Your task to perform on an android device: open app "Truecaller" (install if not already installed) Image 0: 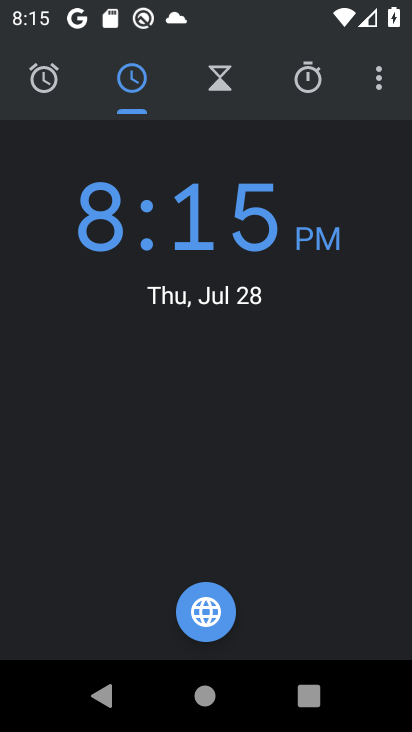
Step 0: press back button
Your task to perform on an android device: open app "Truecaller" (install if not already installed) Image 1: 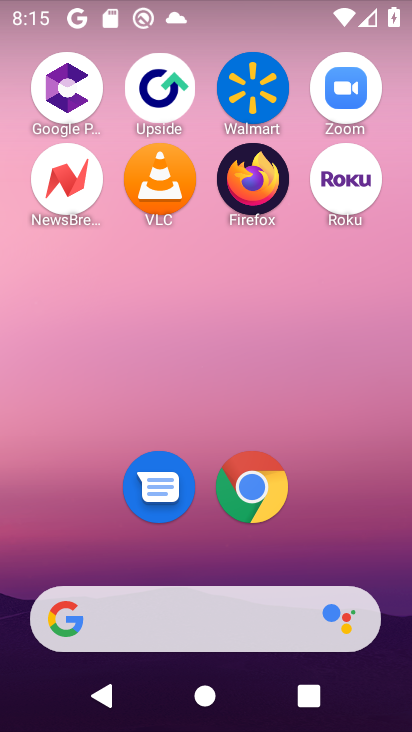
Step 1: drag from (251, 548) to (251, 161)
Your task to perform on an android device: open app "Truecaller" (install if not already installed) Image 2: 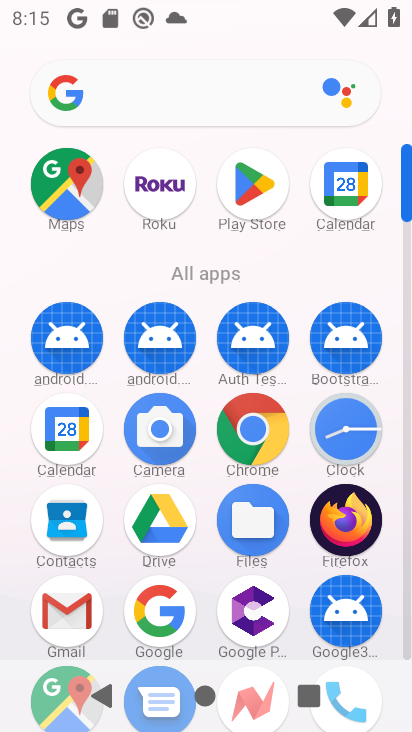
Step 2: drag from (262, 533) to (237, 153)
Your task to perform on an android device: open app "Truecaller" (install if not already installed) Image 3: 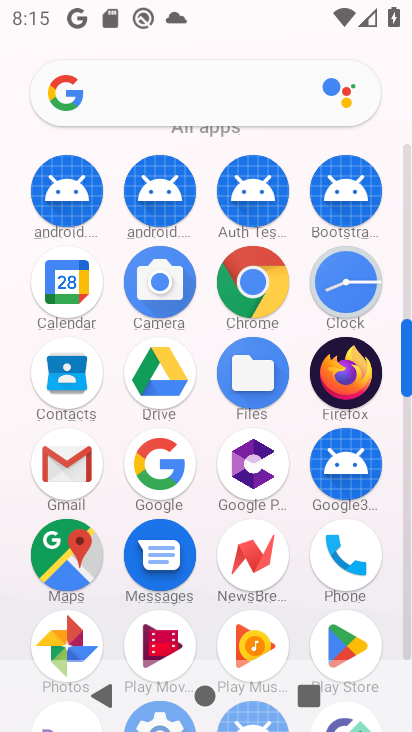
Step 3: drag from (303, 261) to (327, 424)
Your task to perform on an android device: open app "Truecaller" (install if not already installed) Image 4: 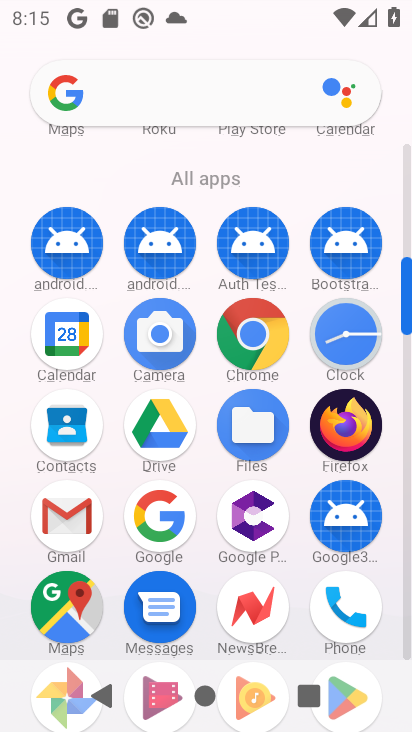
Step 4: drag from (308, 308) to (367, 567)
Your task to perform on an android device: open app "Truecaller" (install if not already installed) Image 5: 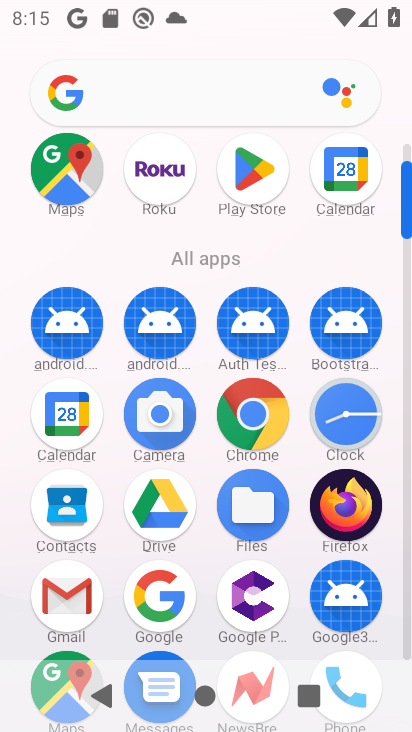
Step 5: click (251, 190)
Your task to perform on an android device: open app "Truecaller" (install if not already installed) Image 6: 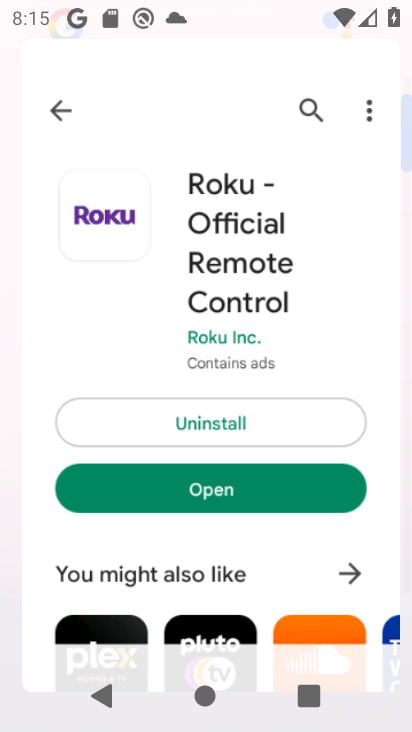
Step 6: click (249, 188)
Your task to perform on an android device: open app "Truecaller" (install if not already installed) Image 7: 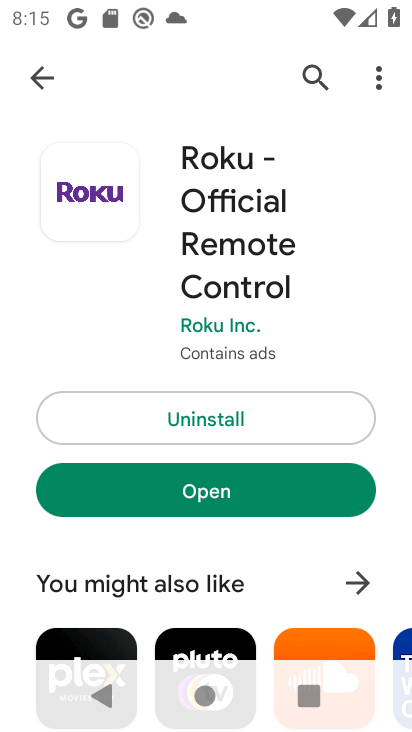
Step 7: click (35, 79)
Your task to perform on an android device: open app "Truecaller" (install if not already installed) Image 8: 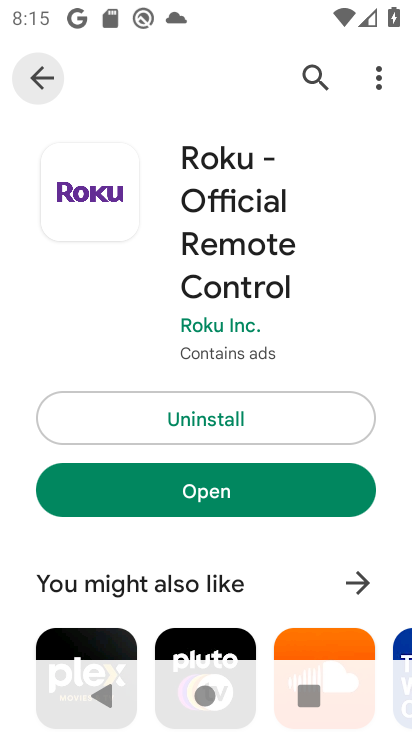
Step 8: click (34, 79)
Your task to perform on an android device: open app "Truecaller" (install if not already installed) Image 9: 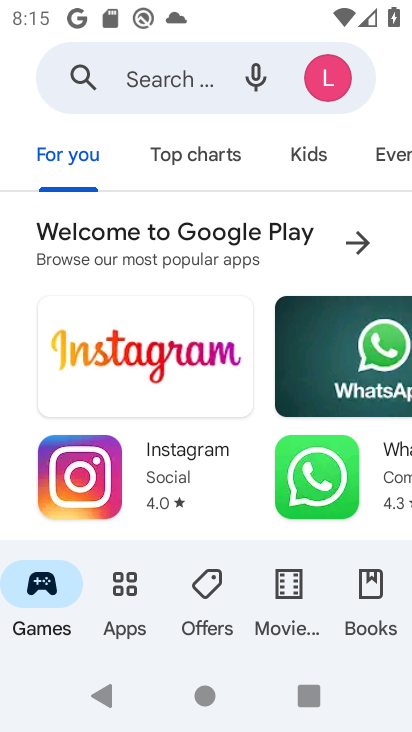
Step 9: click (135, 77)
Your task to perform on an android device: open app "Truecaller" (install if not already installed) Image 10: 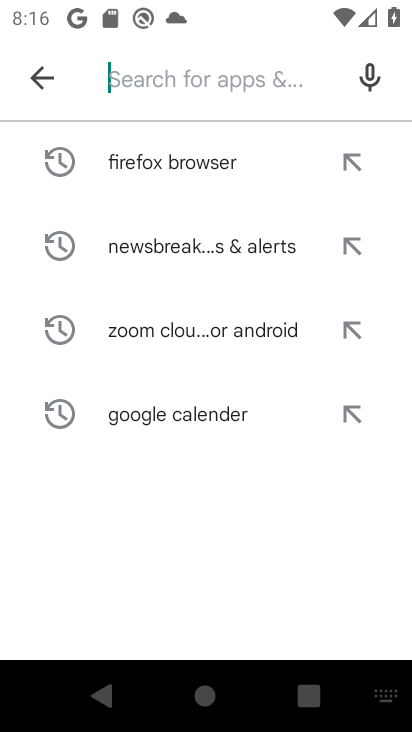
Step 10: type "Truecaller"
Your task to perform on an android device: open app "Truecaller" (install if not already installed) Image 11: 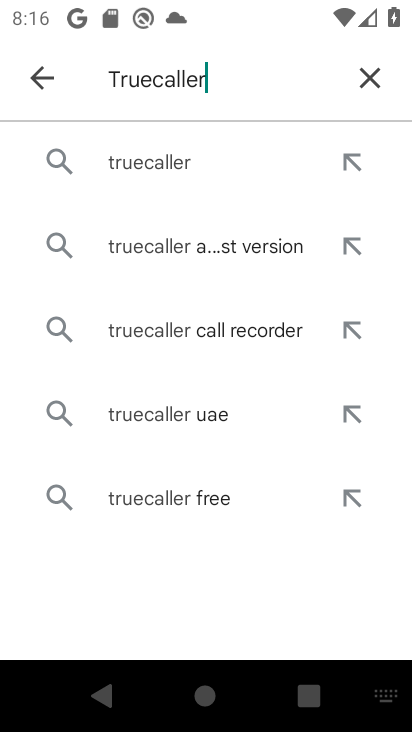
Step 11: click (142, 169)
Your task to perform on an android device: open app "Truecaller" (install if not already installed) Image 12: 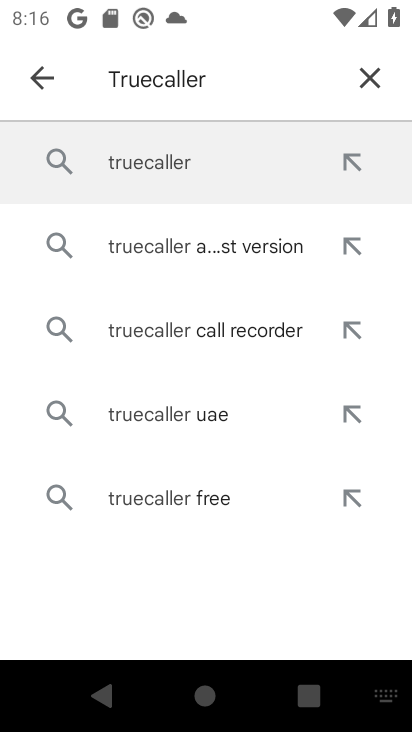
Step 12: click (144, 167)
Your task to perform on an android device: open app "Truecaller" (install if not already installed) Image 13: 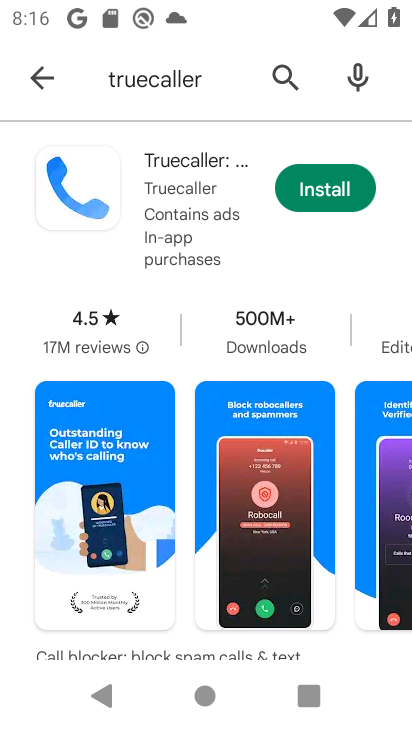
Step 13: click (323, 182)
Your task to perform on an android device: open app "Truecaller" (install if not already installed) Image 14: 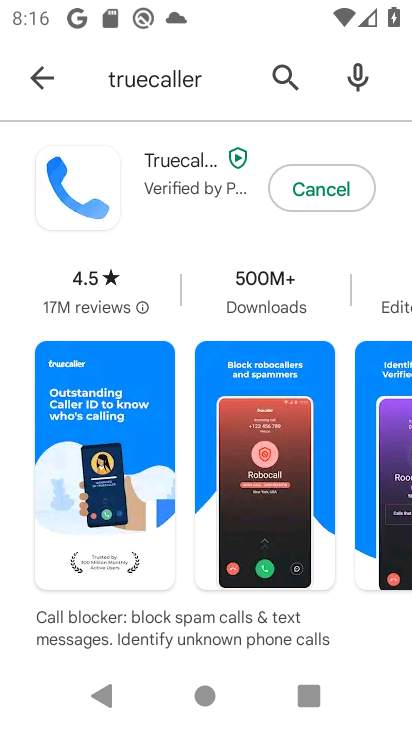
Step 14: click (323, 181)
Your task to perform on an android device: open app "Truecaller" (install if not already installed) Image 15: 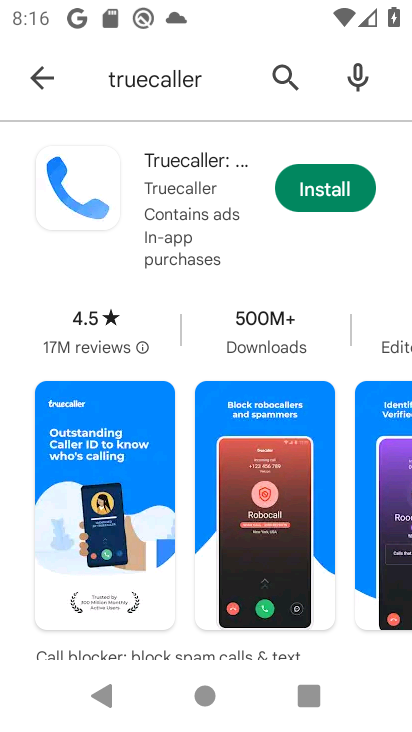
Step 15: click (340, 184)
Your task to perform on an android device: open app "Truecaller" (install if not already installed) Image 16: 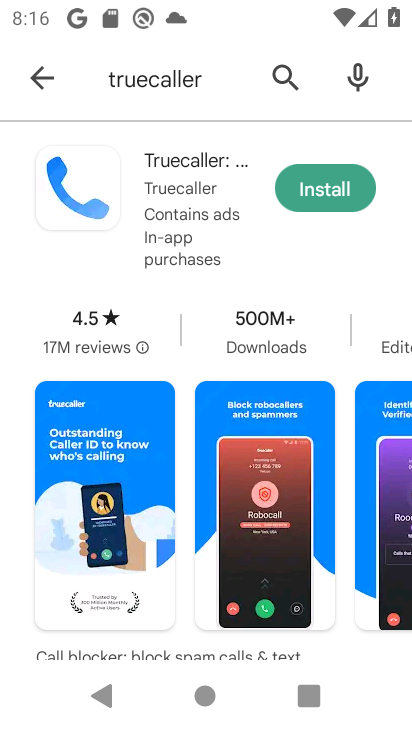
Step 16: click (340, 184)
Your task to perform on an android device: open app "Truecaller" (install if not already installed) Image 17: 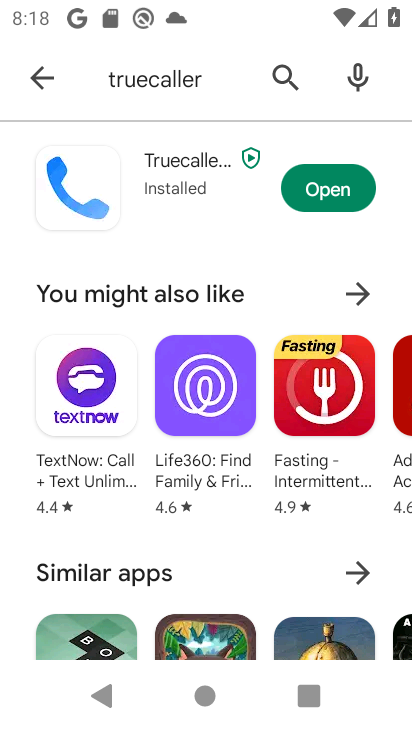
Step 17: click (321, 180)
Your task to perform on an android device: open app "Truecaller" (install if not already installed) Image 18: 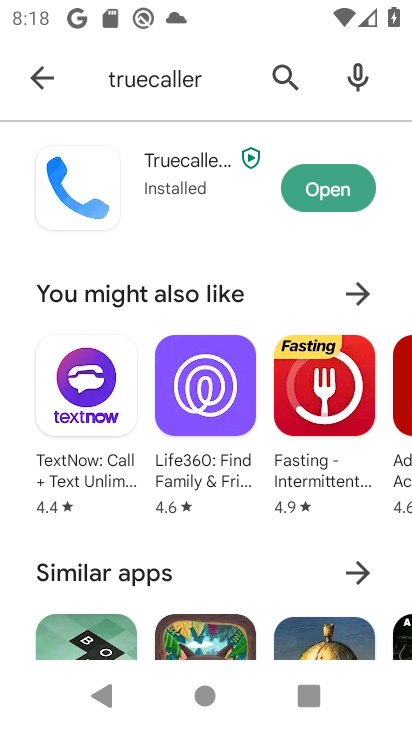
Step 18: click (320, 179)
Your task to perform on an android device: open app "Truecaller" (install if not already installed) Image 19: 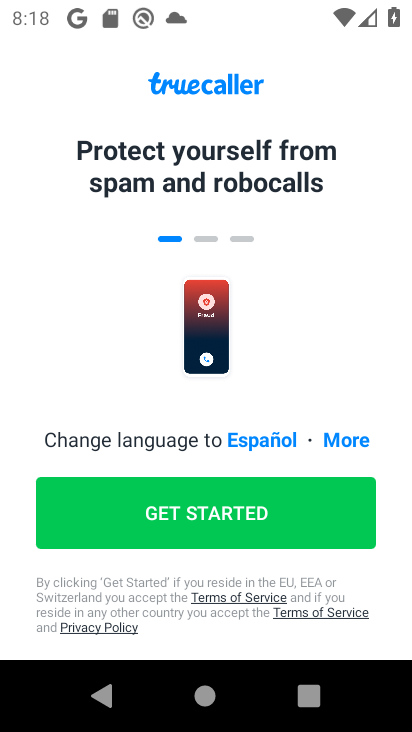
Step 19: click (201, 504)
Your task to perform on an android device: open app "Truecaller" (install if not already installed) Image 20: 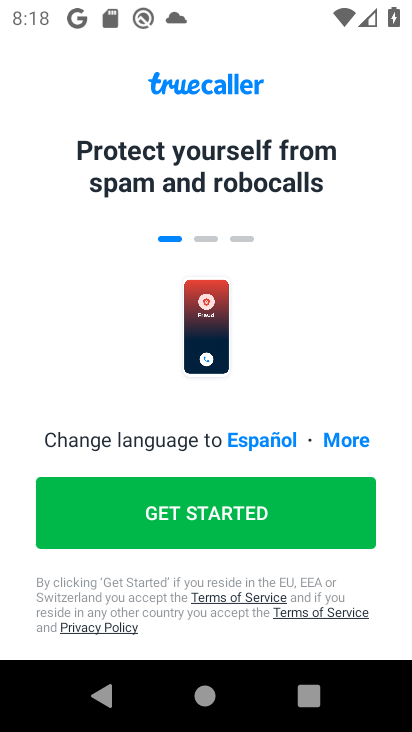
Step 20: click (212, 517)
Your task to perform on an android device: open app "Truecaller" (install if not already installed) Image 21: 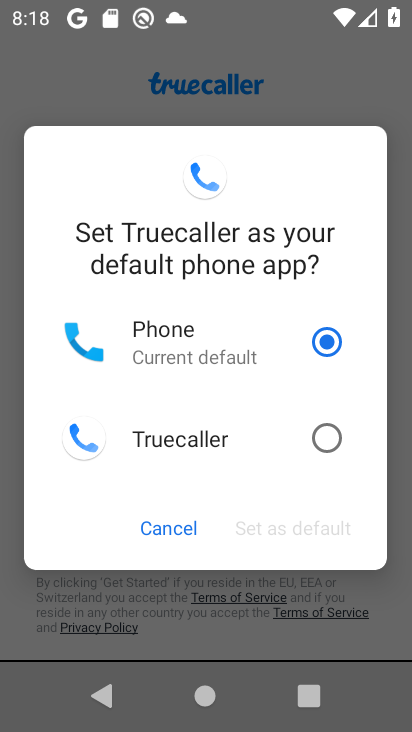
Step 21: click (328, 429)
Your task to perform on an android device: open app "Truecaller" (install if not already installed) Image 22: 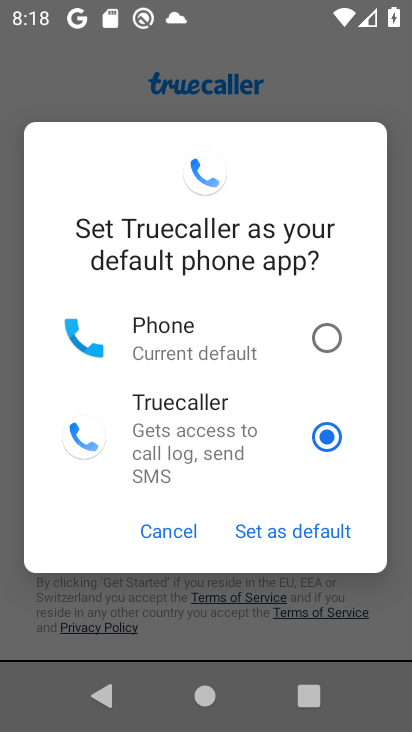
Step 22: click (286, 545)
Your task to perform on an android device: open app "Truecaller" (install if not already installed) Image 23: 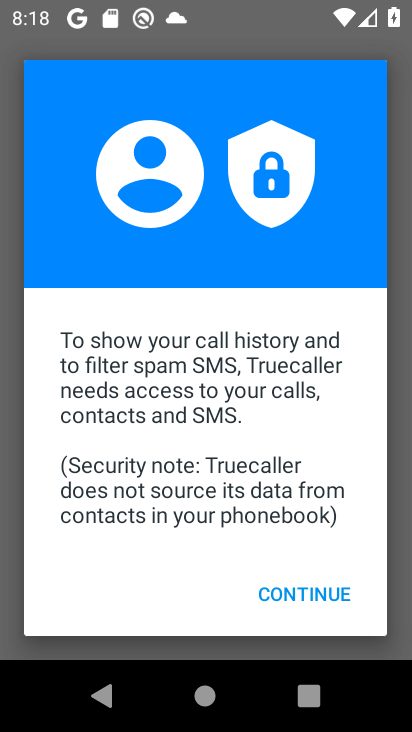
Step 23: click (297, 599)
Your task to perform on an android device: open app "Truecaller" (install if not already installed) Image 24: 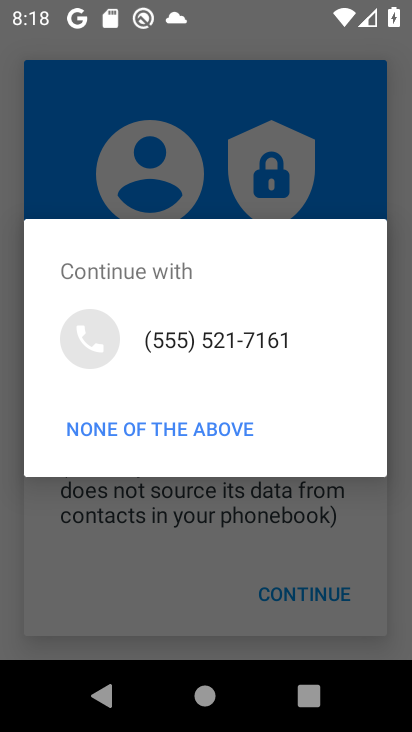
Step 24: click (259, 47)
Your task to perform on an android device: open app "Truecaller" (install if not already installed) Image 25: 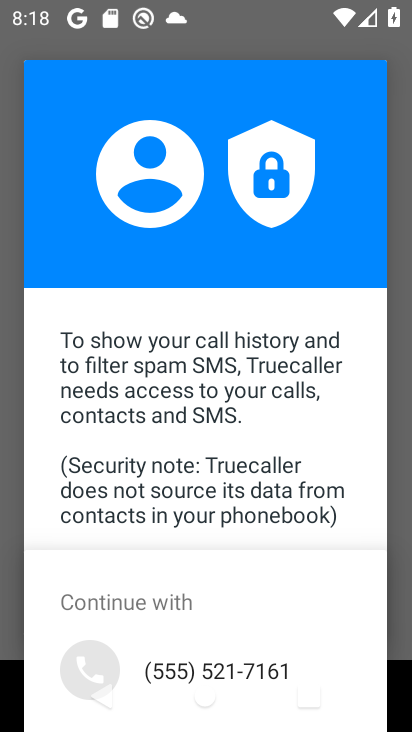
Step 25: click (262, 50)
Your task to perform on an android device: open app "Truecaller" (install if not already installed) Image 26: 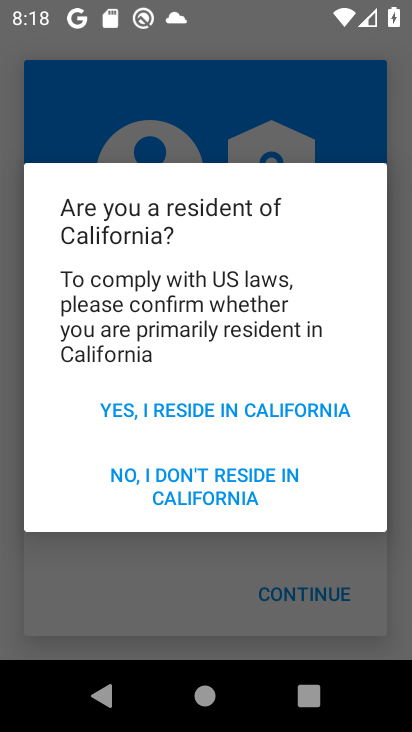
Step 26: task complete